Your task to perform on an android device: Go to ESPN.com Image 0: 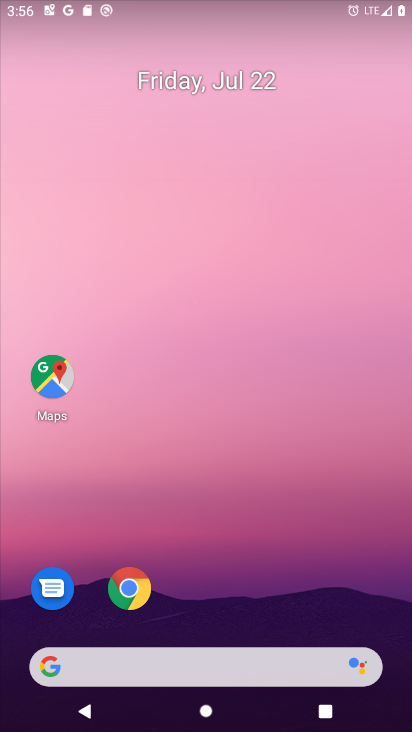
Step 0: drag from (292, 589) to (336, 119)
Your task to perform on an android device: Go to ESPN.com Image 1: 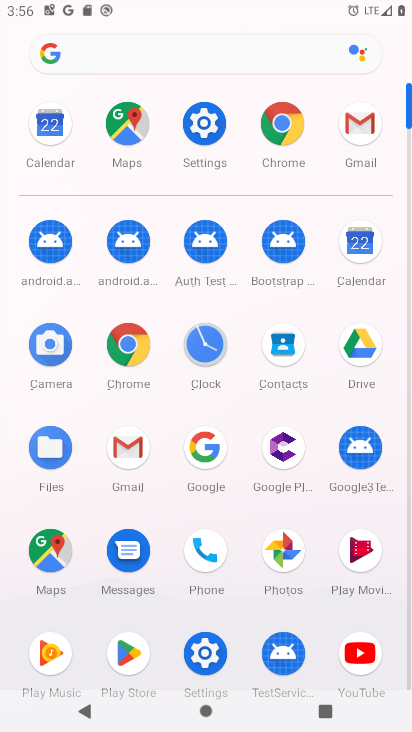
Step 1: click (132, 338)
Your task to perform on an android device: Go to ESPN.com Image 2: 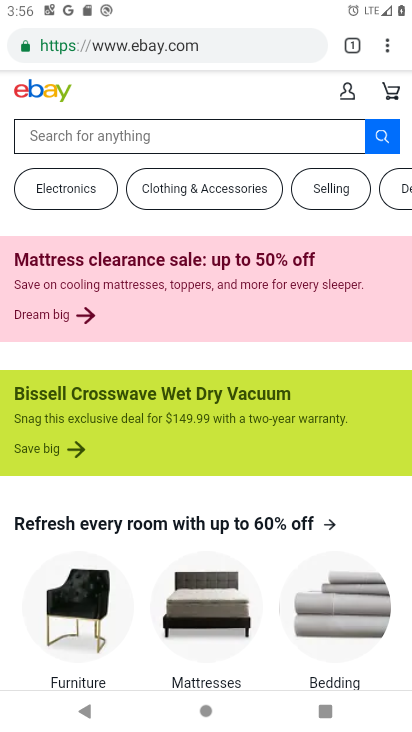
Step 2: click (133, 45)
Your task to perform on an android device: Go to ESPN.com Image 3: 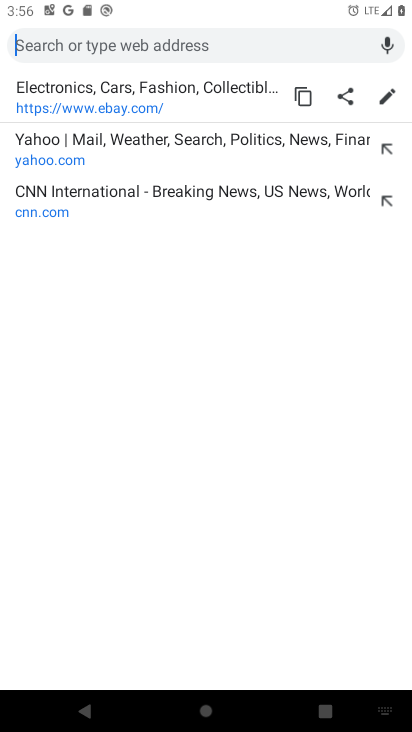
Step 3: type " ESPN.com"
Your task to perform on an android device: Go to ESPN.com Image 4: 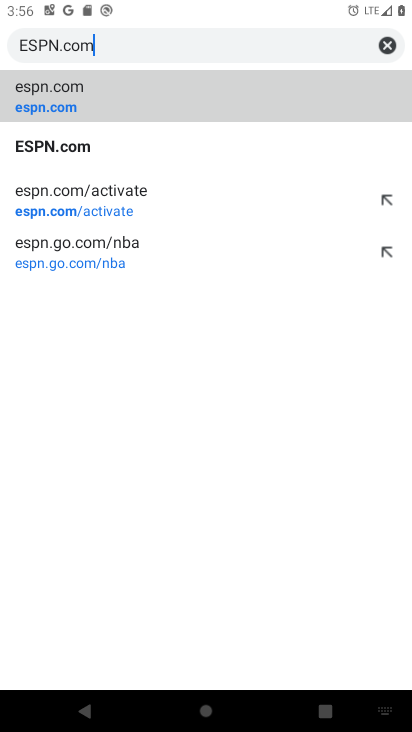
Step 4: click (50, 105)
Your task to perform on an android device: Go to ESPN.com Image 5: 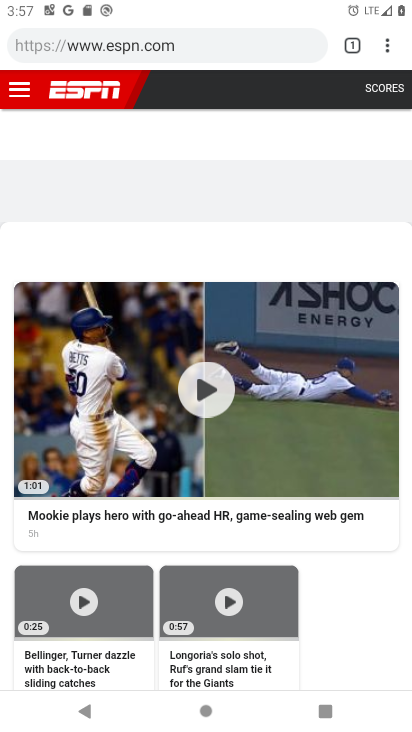
Step 5: task complete